Your task to perform on an android device: Open Google Chrome Image 0: 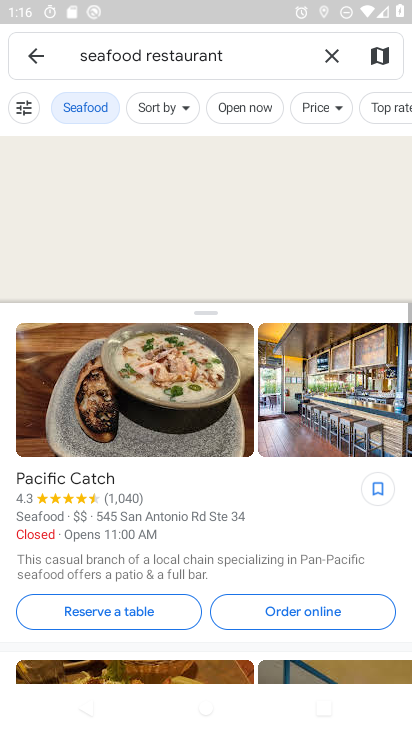
Step 0: press home button
Your task to perform on an android device: Open Google Chrome Image 1: 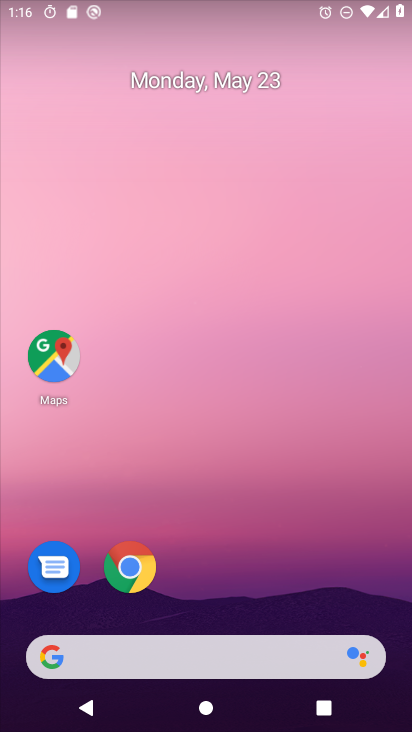
Step 1: click (127, 563)
Your task to perform on an android device: Open Google Chrome Image 2: 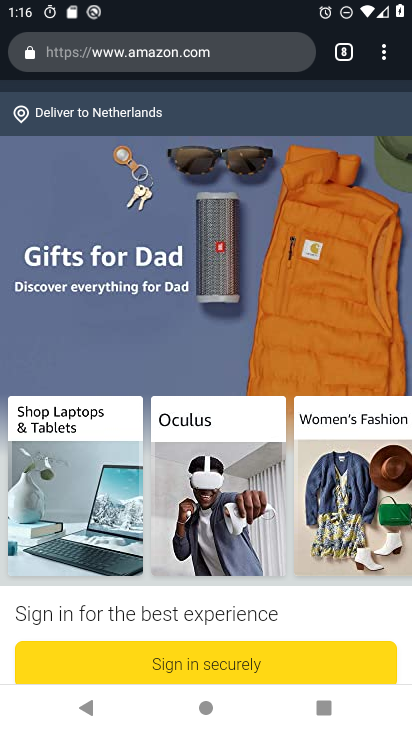
Step 2: task complete